Your task to perform on an android device: Go to CNN.com Image 0: 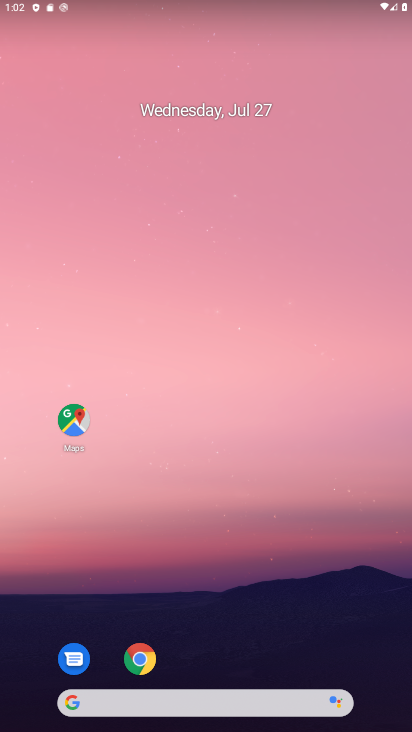
Step 0: drag from (344, 609) to (223, 86)
Your task to perform on an android device: Go to CNN.com Image 1: 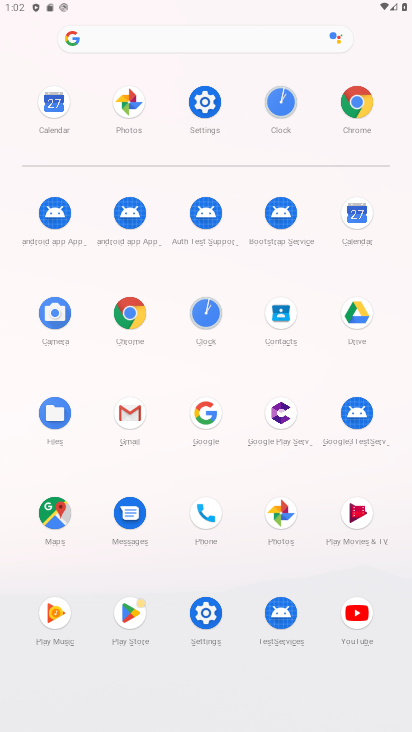
Step 1: click (361, 102)
Your task to perform on an android device: Go to CNN.com Image 2: 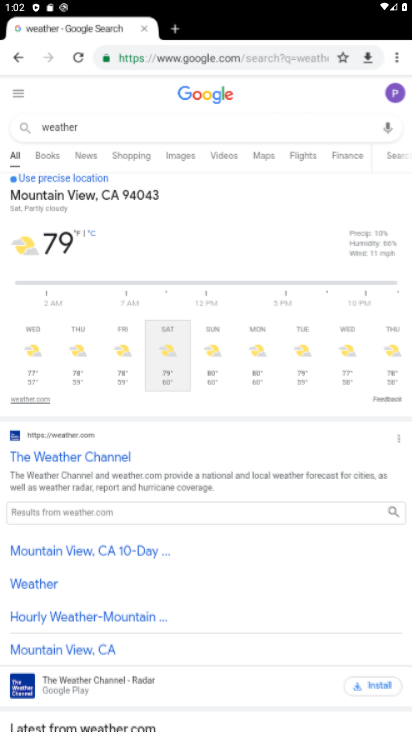
Step 2: click (215, 53)
Your task to perform on an android device: Go to CNN.com Image 3: 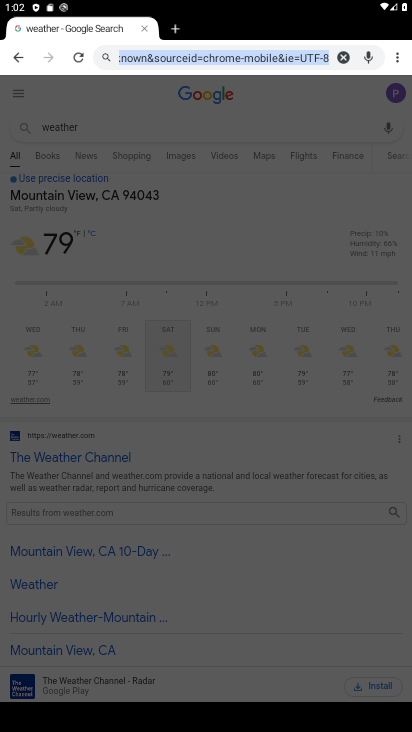
Step 3: type "cnn.com"
Your task to perform on an android device: Go to CNN.com Image 4: 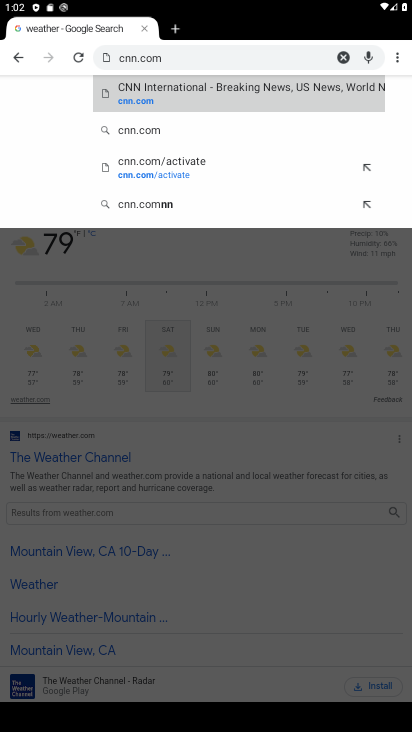
Step 4: click (202, 97)
Your task to perform on an android device: Go to CNN.com Image 5: 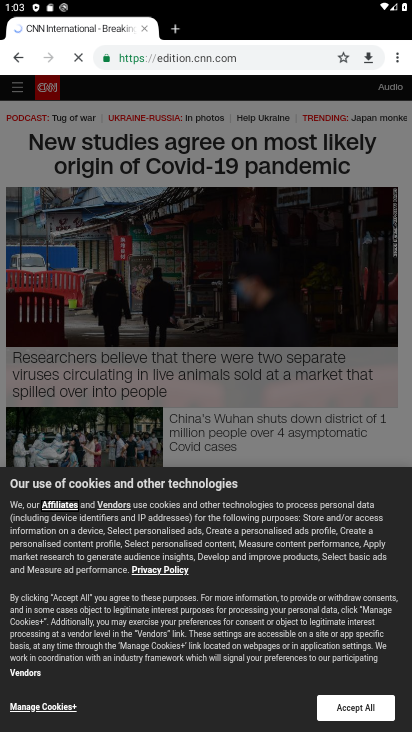
Step 5: task complete